Your task to perform on an android device: Open Youtube and go to "Your channel" Image 0: 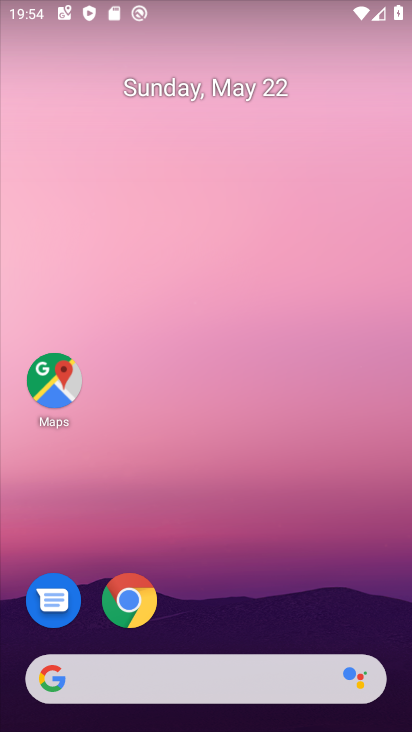
Step 0: drag from (227, 575) to (233, 51)
Your task to perform on an android device: Open Youtube and go to "Your channel" Image 1: 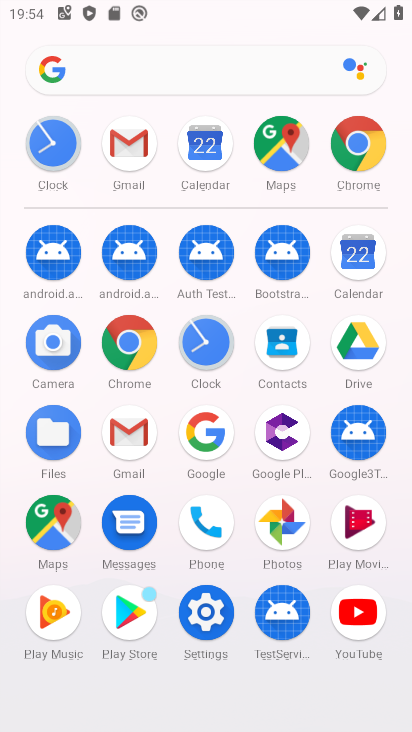
Step 1: drag from (0, 551) to (9, 261)
Your task to perform on an android device: Open Youtube and go to "Your channel" Image 2: 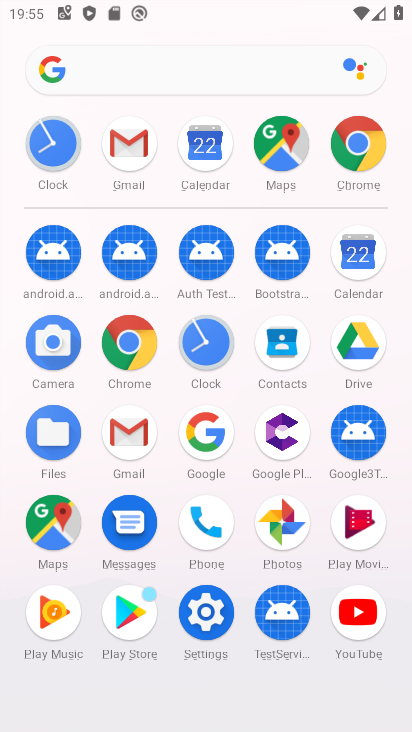
Step 2: click (357, 605)
Your task to perform on an android device: Open Youtube and go to "Your channel" Image 3: 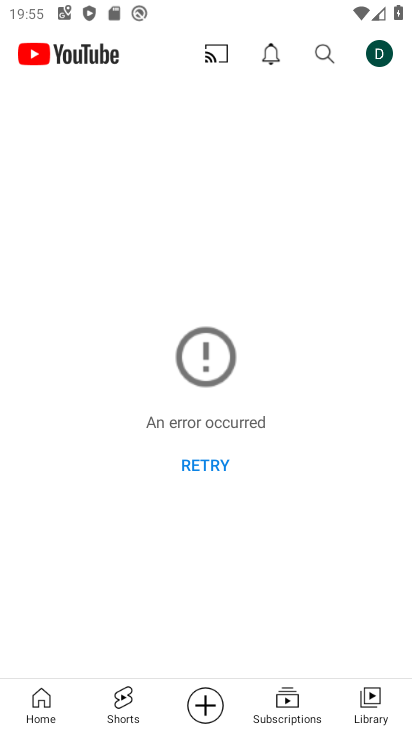
Step 3: click (366, 697)
Your task to perform on an android device: Open Youtube and go to "Your channel" Image 4: 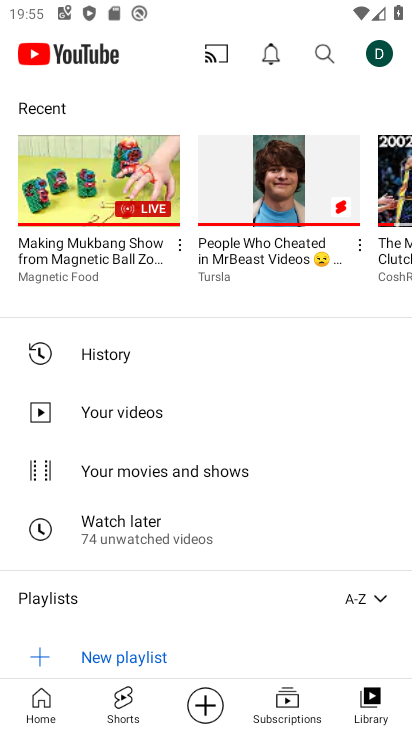
Step 4: click (374, 46)
Your task to perform on an android device: Open Youtube and go to "Your channel" Image 5: 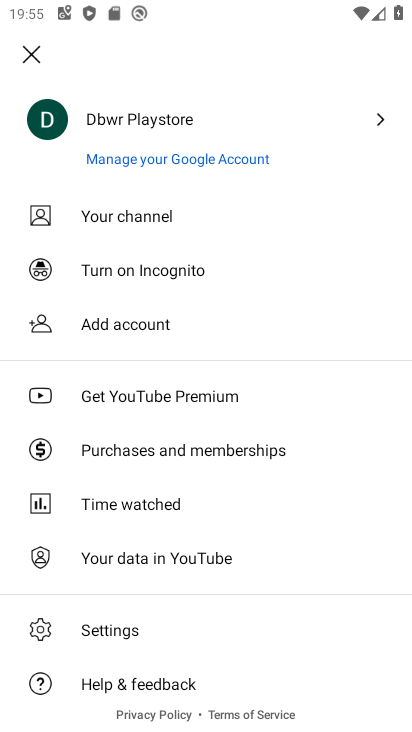
Step 5: click (136, 210)
Your task to perform on an android device: Open Youtube and go to "Your channel" Image 6: 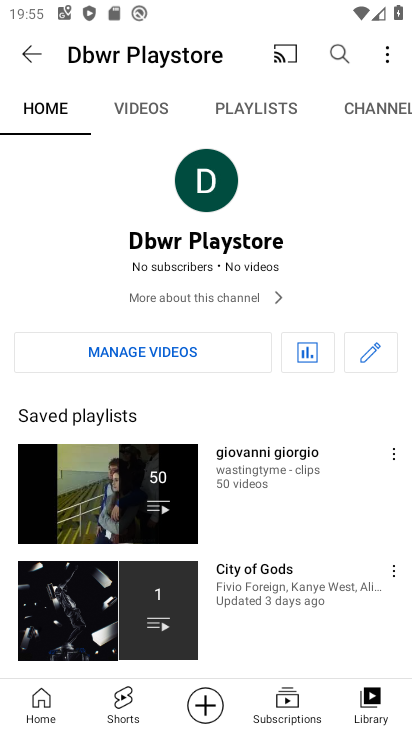
Step 6: task complete